Your task to perform on an android device: Open Google Chrome and click the shortcut for Amazon.com Image 0: 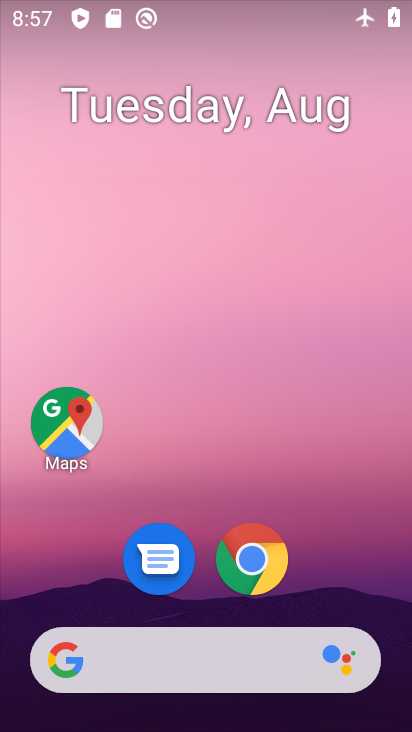
Step 0: drag from (333, 543) to (339, 120)
Your task to perform on an android device: Open Google Chrome and click the shortcut for Amazon.com Image 1: 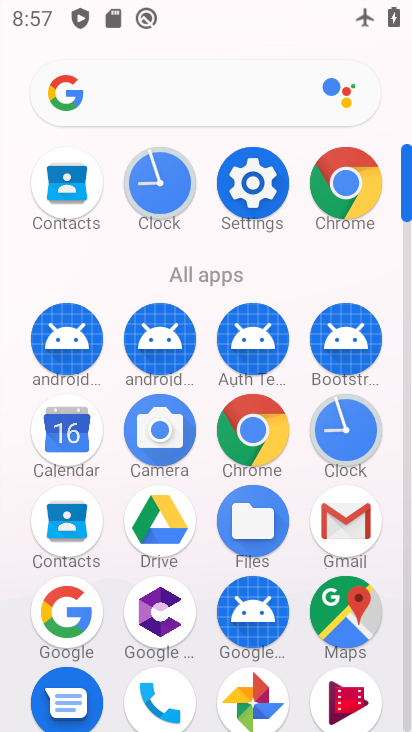
Step 1: click (268, 422)
Your task to perform on an android device: Open Google Chrome and click the shortcut for Amazon.com Image 2: 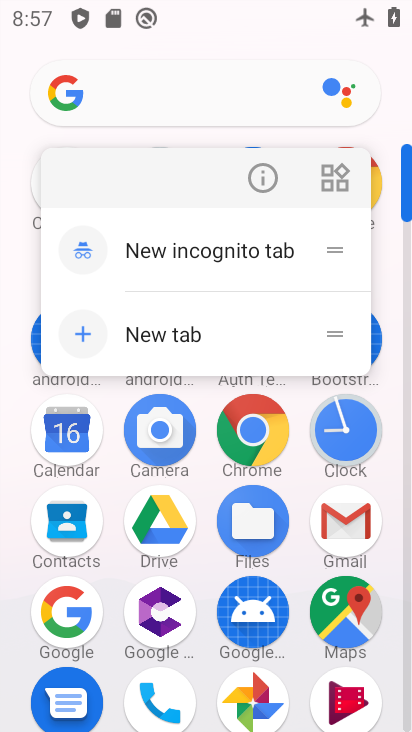
Step 2: click (256, 427)
Your task to perform on an android device: Open Google Chrome and click the shortcut for Amazon.com Image 3: 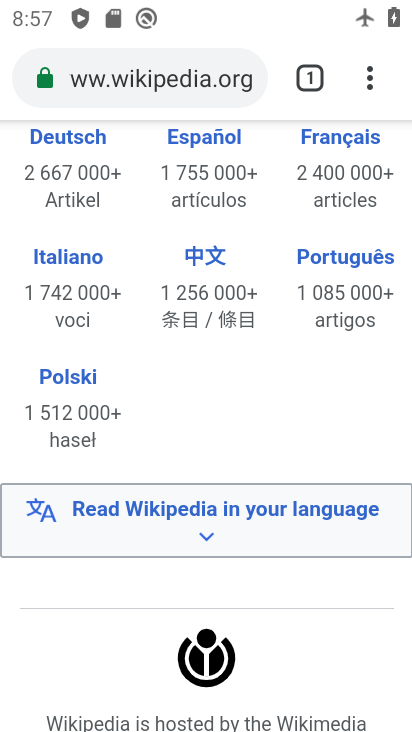
Step 3: click (369, 77)
Your task to perform on an android device: Open Google Chrome and click the shortcut for Amazon.com Image 4: 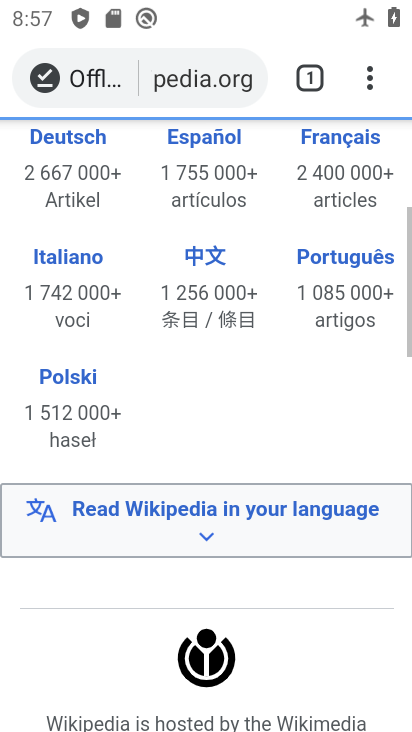
Step 4: drag from (354, 5) to (332, 487)
Your task to perform on an android device: Open Google Chrome and click the shortcut for Amazon.com Image 5: 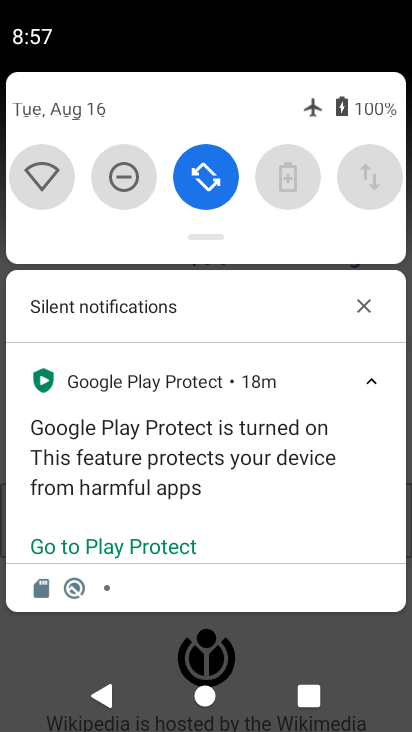
Step 5: drag from (305, 231) to (305, 480)
Your task to perform on an android device: Open Google Chrome and click the shortcut for Amazon.com Image 6: 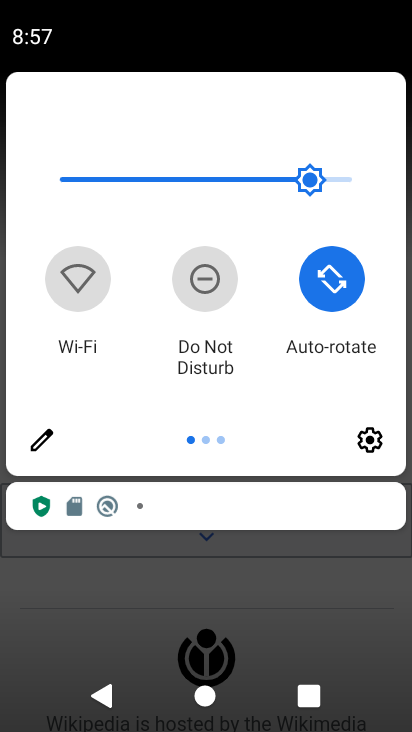
Step 6: drag from (364, 233) to (0, 164)
Your task to perform on an android device: Open Google Chrome and click the shortcut for Amazon.com Image 7: 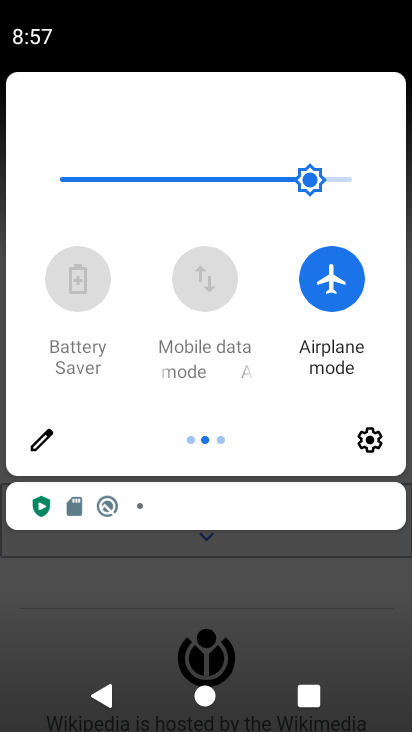
Step 7: click (334, 274)
Your task to perform on an android device: Open Google Chrome and click the shortcut for Amazon.com Image 8: 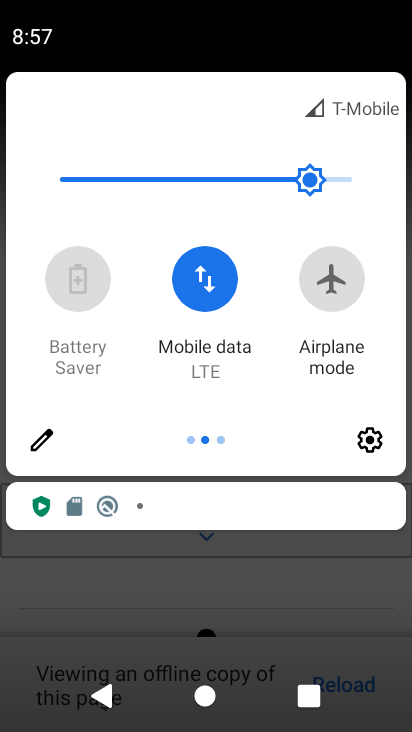
Step 8: click (401, 548)
Your task to perform on an android device: Open Google Chrome and click the shortcut for Amazon.com Image 9: 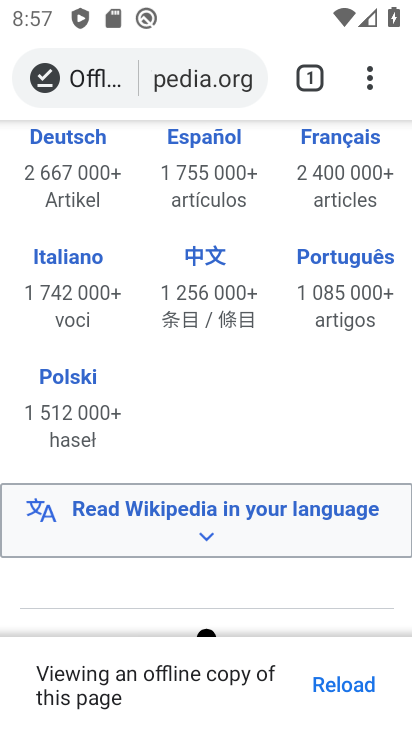
Step 9: drag from (370, 79) to (135, 154)
Your task to perform on an android device: Open Google Chrome and click the shortcut for Amazon.com Image 10: 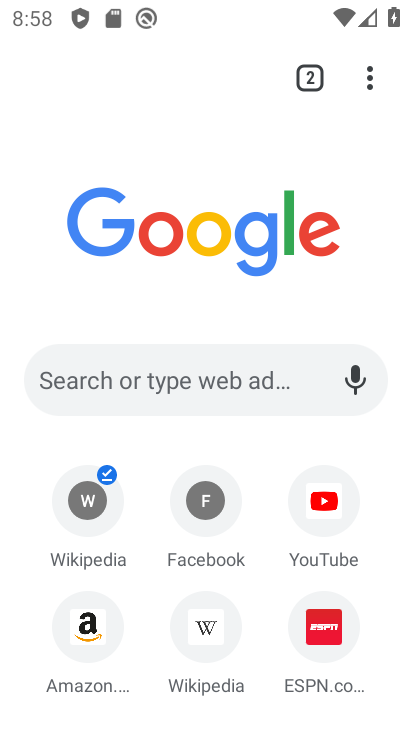
Step 10: click (67, 633)
Your task to perform on an android device: Open Google Chrome and click the shortcut for Amazon.com Image 11: 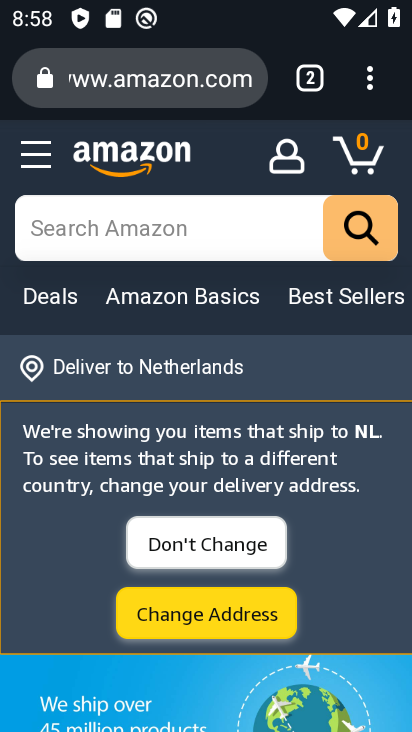
Step 11: task complete